Your task to perform on an android device: Open the map Image 0: 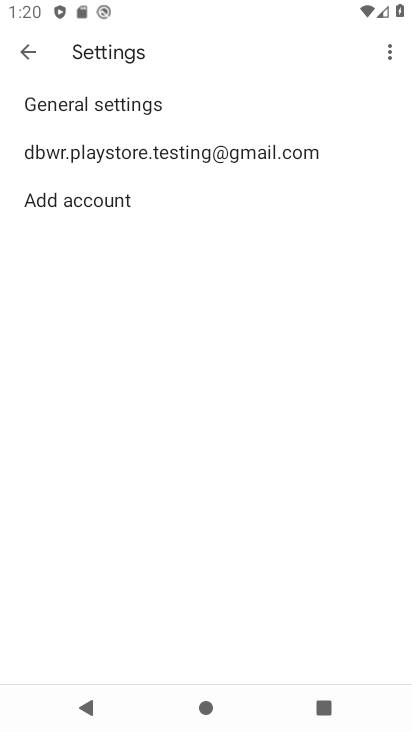
Step 0: press home button
Your task to perform on an android device: Open the map Image 1: 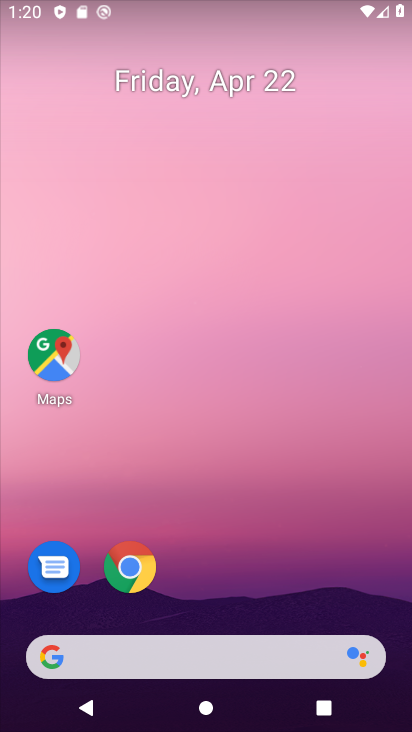
Step 1: click (59, 375)
Your task to perform on an android device: Open the map Image 2: 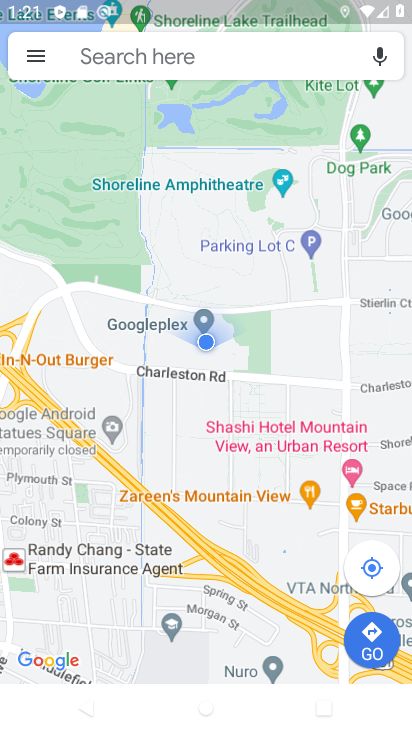
Step 2: task complete